Your task to perform on an android device: turn on sleep mode Image 0: 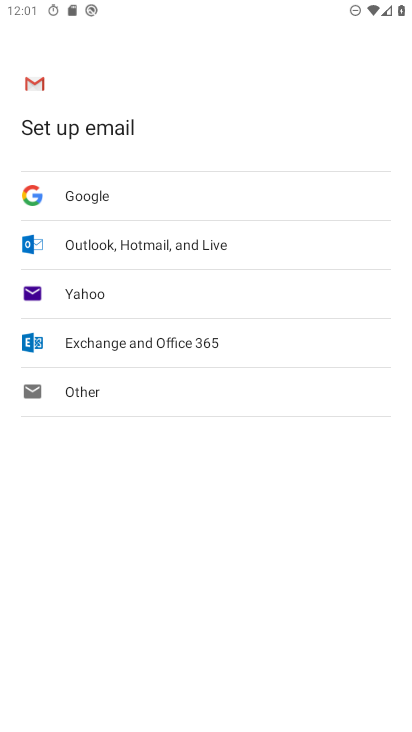
Step 0: press home button
Your task to perform on an android device: turn on sleep mode Image 1: 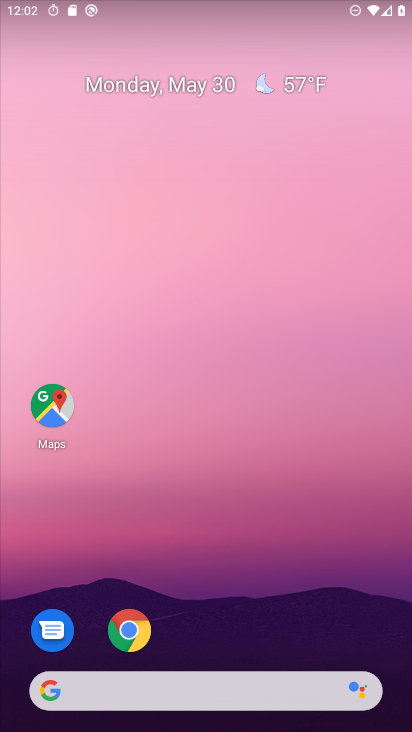
Step 1: drag from (363, 710) to (355, 131)
Your task to perform on an android device: turn on sleep mode Image 2: 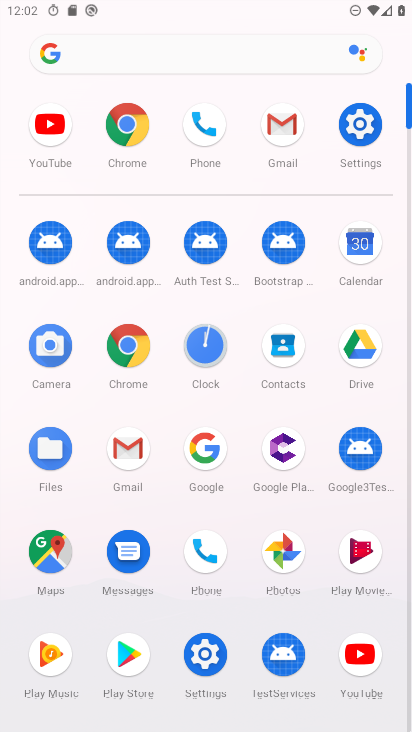
Step 2: click (211, 657)
Your task to perform on an android device: turn on sleep mode Image 3: 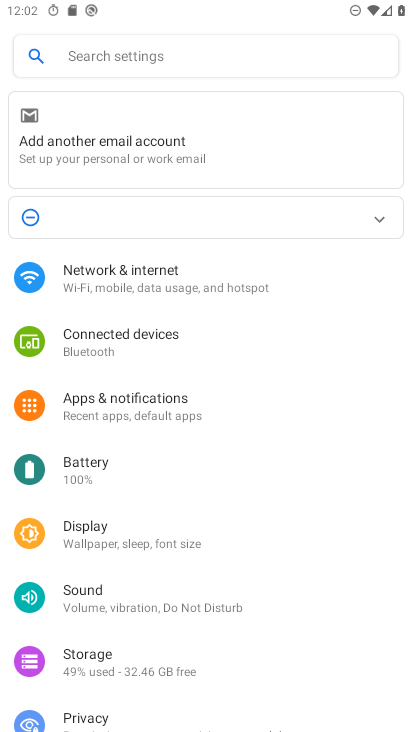
Step 3: click (135, 58)
Your task to perform on an android device: turn on sleep mode Image 4: 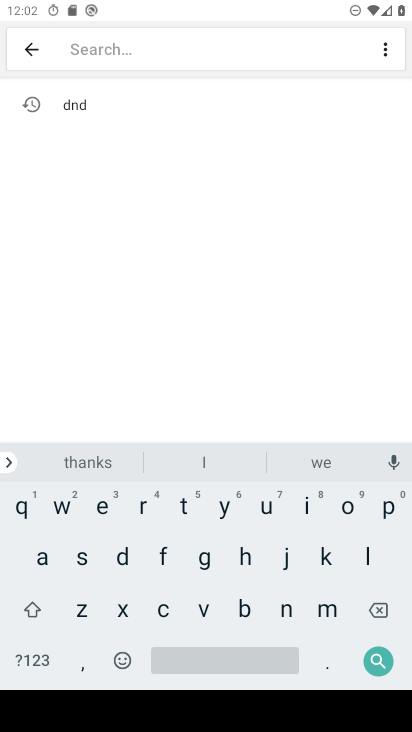
Step 4: click (83, 556)
Your task to perform on an android device: turn on sleep mode Image 5: 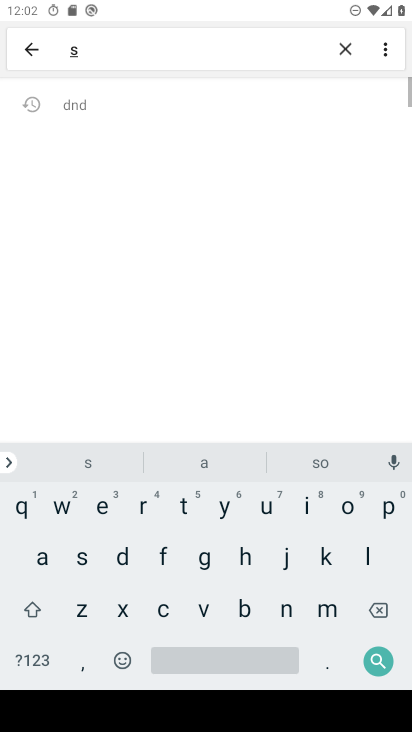
Step 5: click (366, 552)
Your task to perform on an android device: turn on sleep mode Image 6: 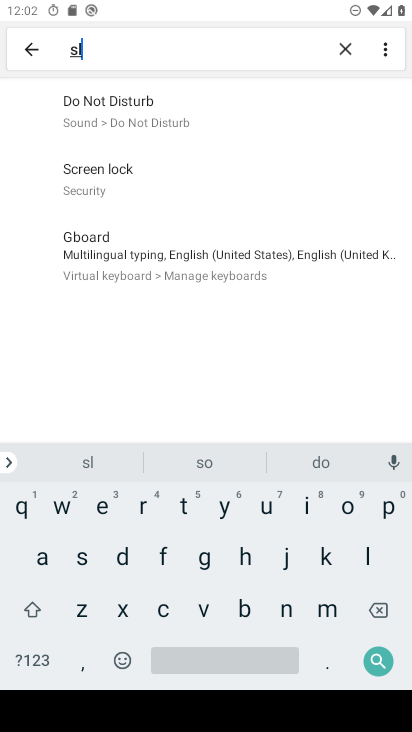
Step 6: click (143, 122)
Your task to perform on an android device: turn on sleep mode Image 7: 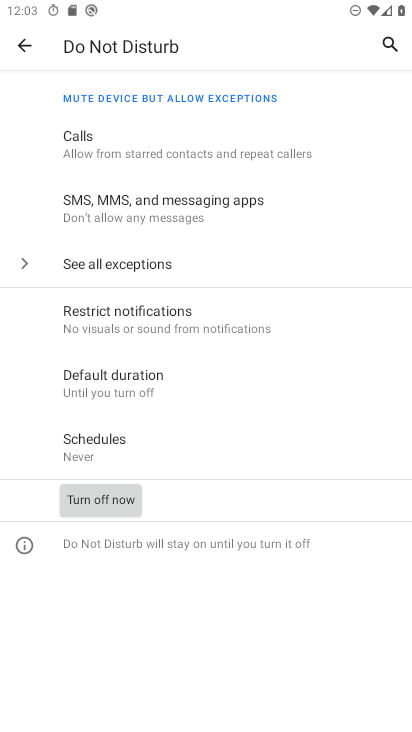
Step 7: click (40, 48)
Your task to perform on an android device: turn on sleep mode Image 8: 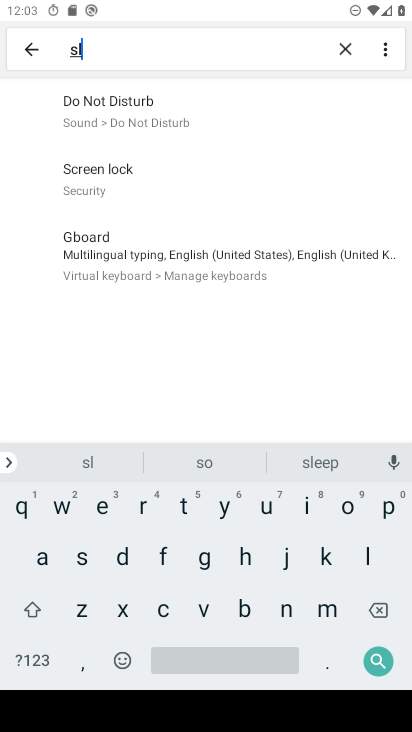
Step 8: click (382, 602)
Your task to perform on an android device: turn on sleep mode Image 9: 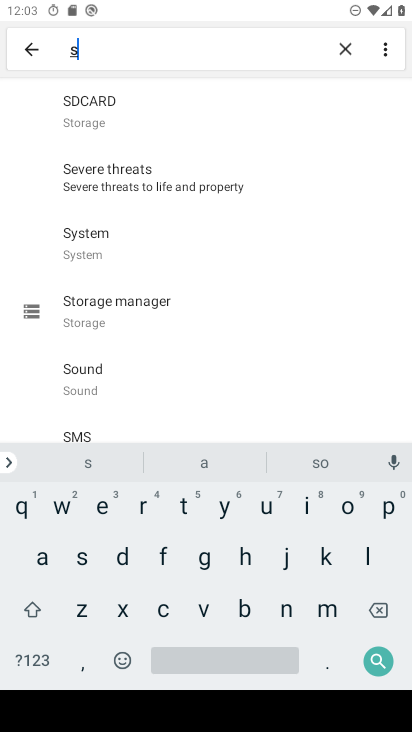
Step 9: click (369, 552)
Your task to perform on an android device: turn on sleep mode Image 10: 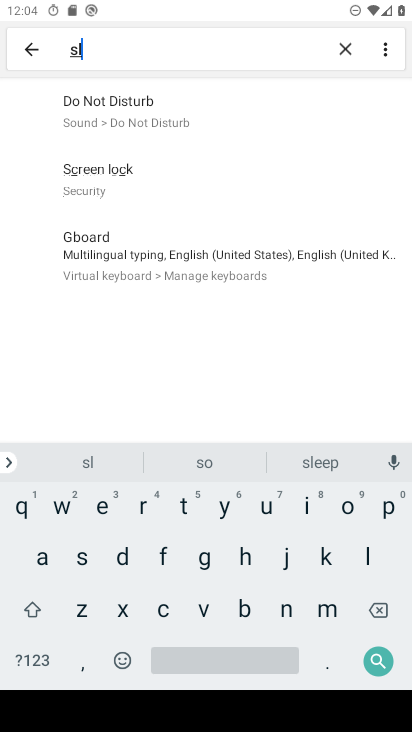
Step 10: click (100, 114)
Your task to perform on an android device: turn on sleep mode Image 11: 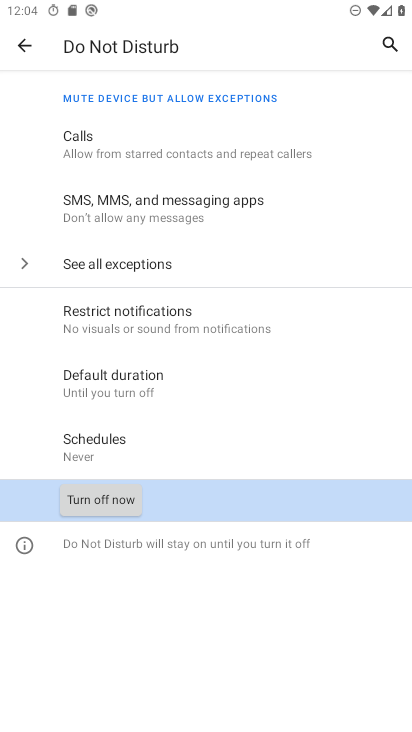
Step 11: task complete